Your task to perform on an android device: create a new album in the google photos Image 0: 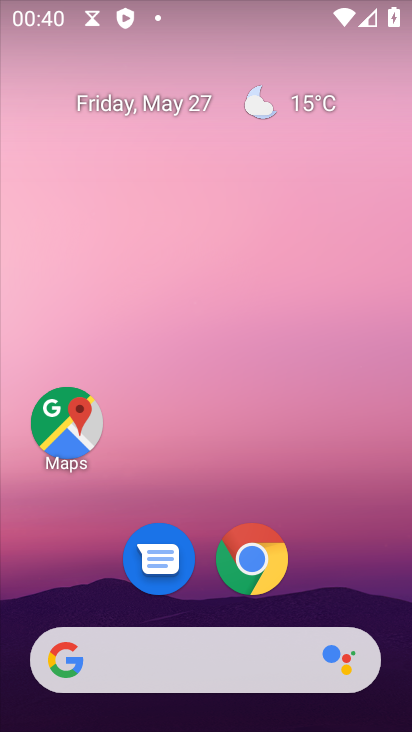
Step 0: drag from (339, 565) to (241, 80)
Your task to perform on an android device: create a new album in the google photos Image 1: 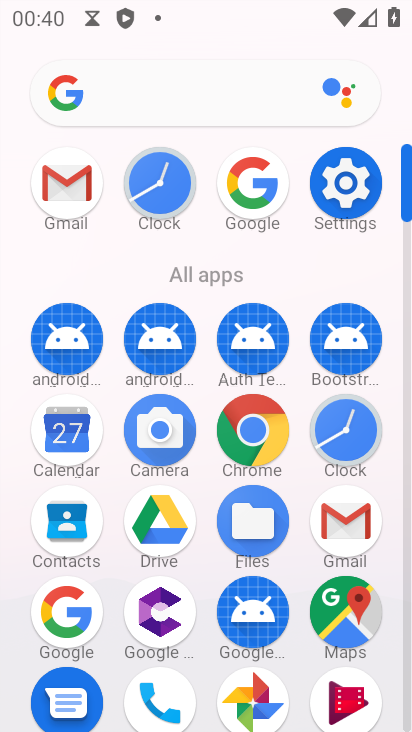
Step 1: click (258, 709)
Your task to perform on an android device: create a new album in the google photos Image 2: 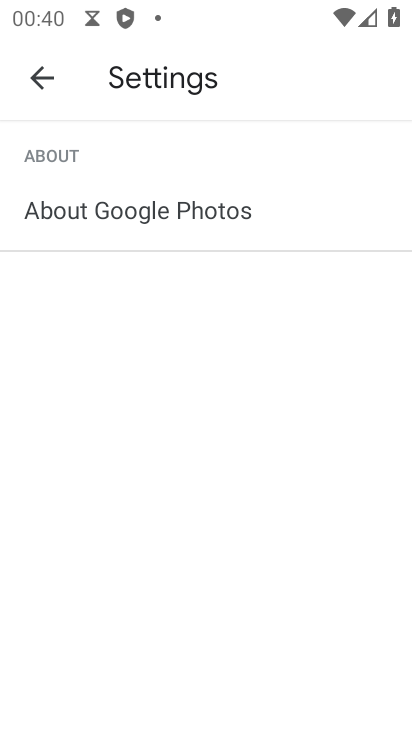
Step 2: click (42, 69)
Your task to perform on an android device: create a new album in the google photos Image 3: 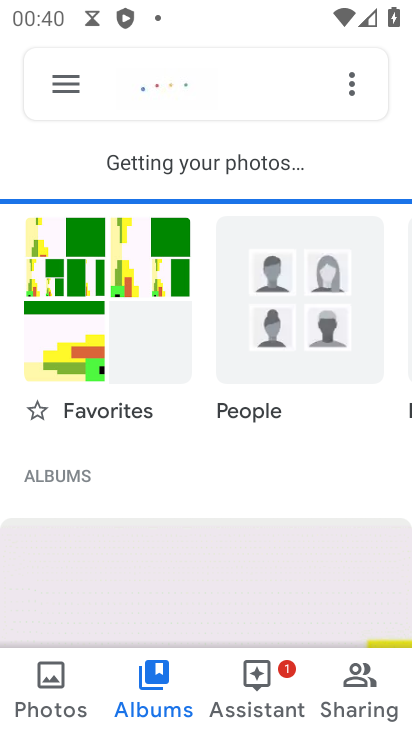
Step 3: click (353, 75)
Your task to perform on an android device: create a new album in the google photos Image 4: 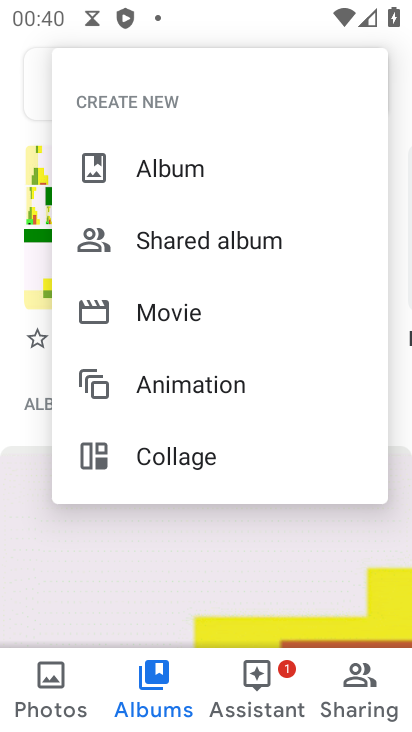
Step 4: click (214, 168)
Your task to perform on an android device: create a new album in the google photos Image 5: 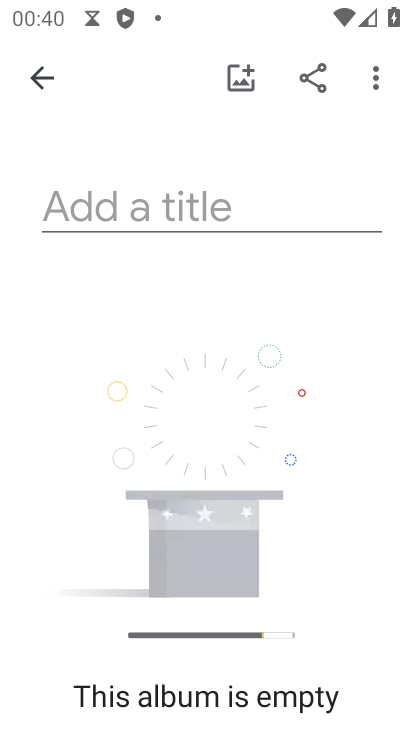
Step 5: click (283, 200)
Your task to perform on an android device: create a new album in the google photos Image 6: 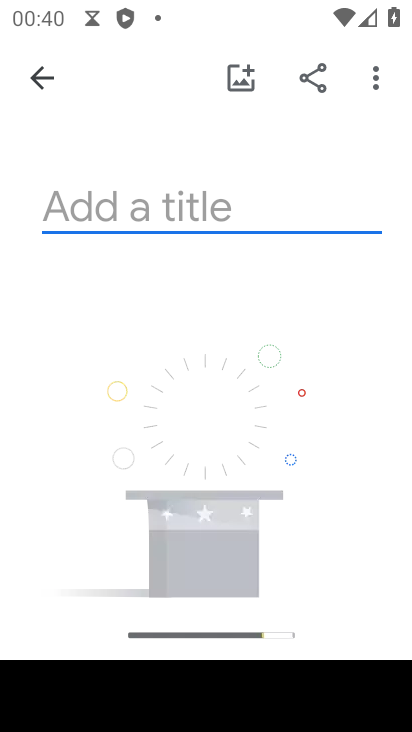
Step 6: type "cfdfdfd"
Your task to perform on an android device: create a new album in the google photos Image 7: 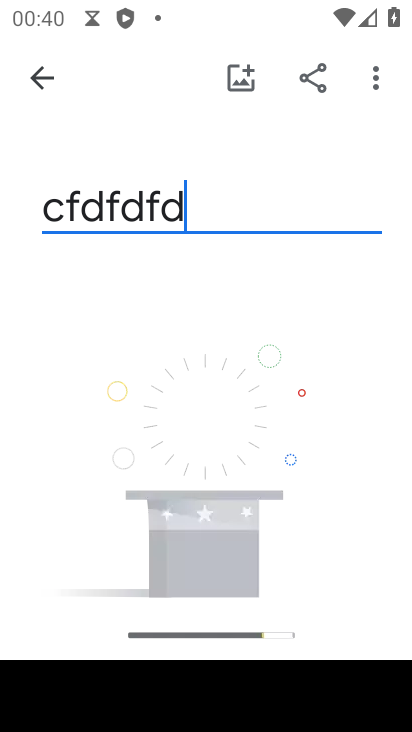
Step 7: type ""
Your task to perform on an android device: create a new album in the google photos Image 8: 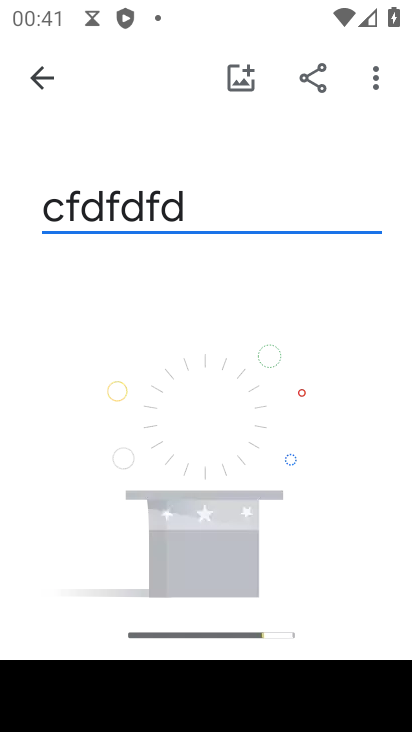
Step 8: drag from (166, 512) to (234, 335)
Your task to perform on an android device: create a new album in the google photos Image 9: 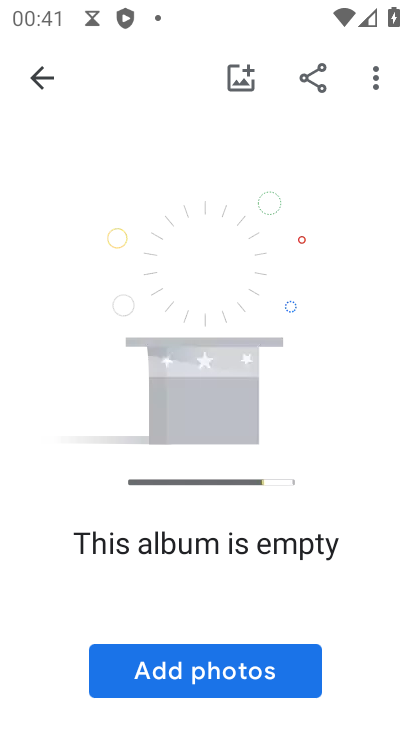
Step 9: click (202, 692)
Your task to perform on an android device: create a new album in the google photos Image 10: 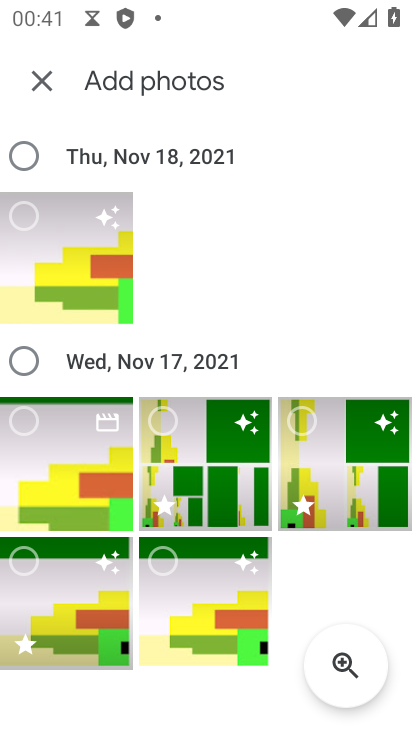
Step 10: task complete